Your task to perform on an android device: Go to Google maps Image 0: 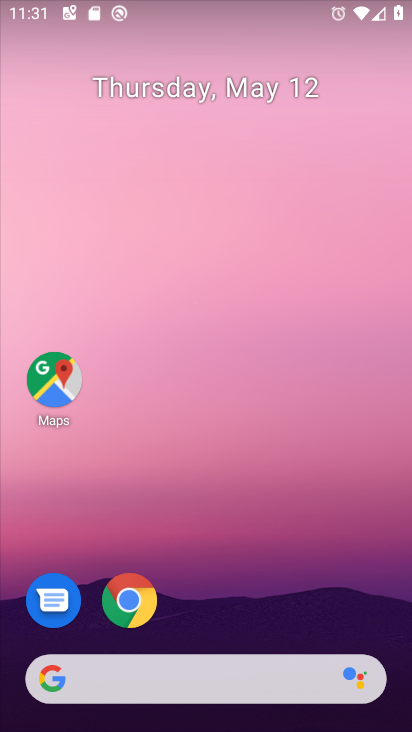
Step 0: click (58, 380)
Your task to perform on an android device: Go to Google maps Image 1: 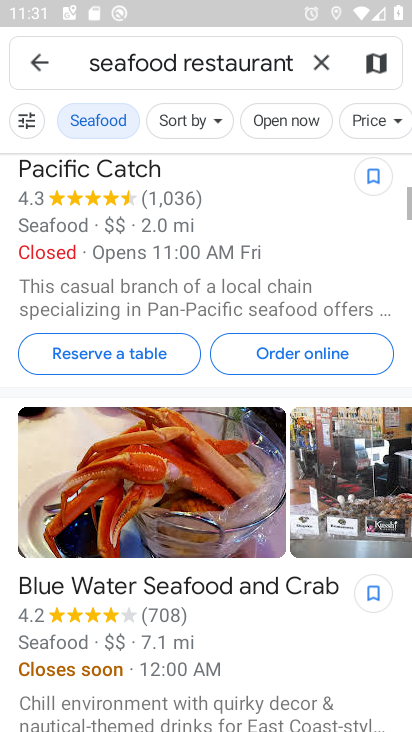
Step 1: task complete